Your task to perform on an android device: toggle notifications settings in the gmail app Image 0: 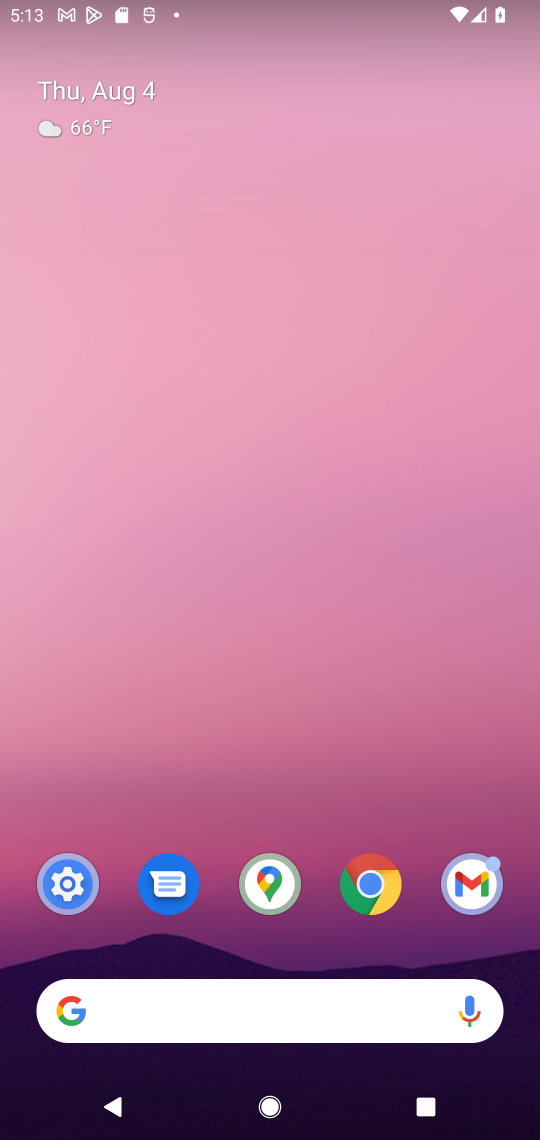
Step 0: click (494, 885)
Your task to perform on an android device: toggle notifications settings in the gmail app Image 1: 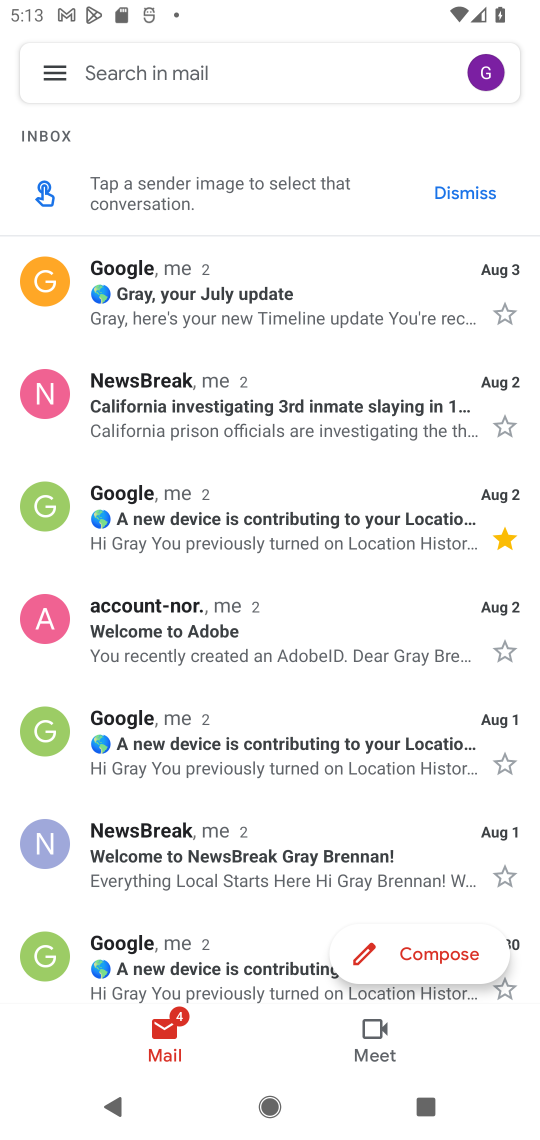
Step 1: task complete